Your task to perform on an android device: Open Google Chrome Image 0: 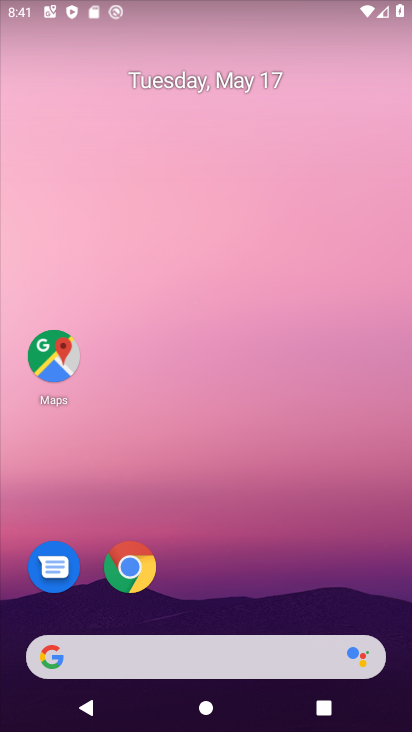
Step 0: click (140, 572)
Your task to perform on an android device: Open Google Chrome Image 1: 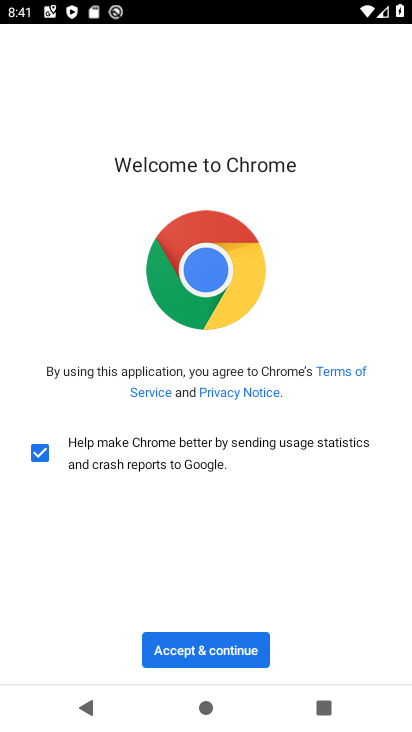
Step 1: click (192, 649)
Your task to perform on an android device: Open Google Chrome Image 2: 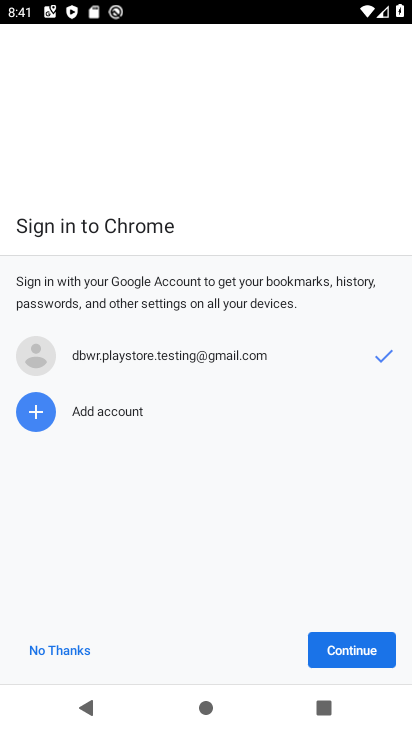
Step 2: click (339, 648)
Your task to perform on an android device: Open Google Chrome Image 3: 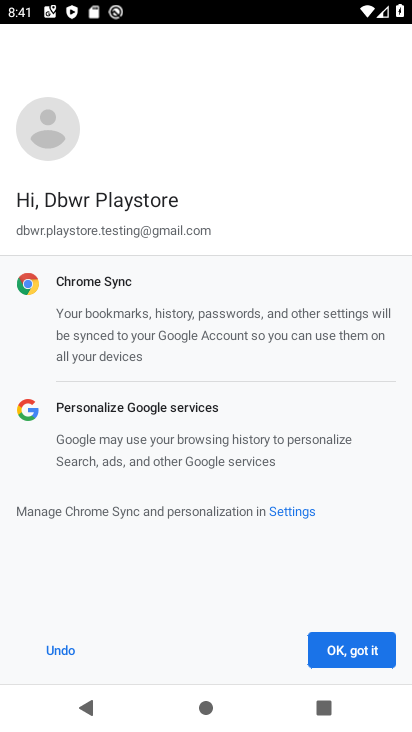
Step 3: click (349, 647)
Your task to perform on an android device: Open Google Chrome Image 4: 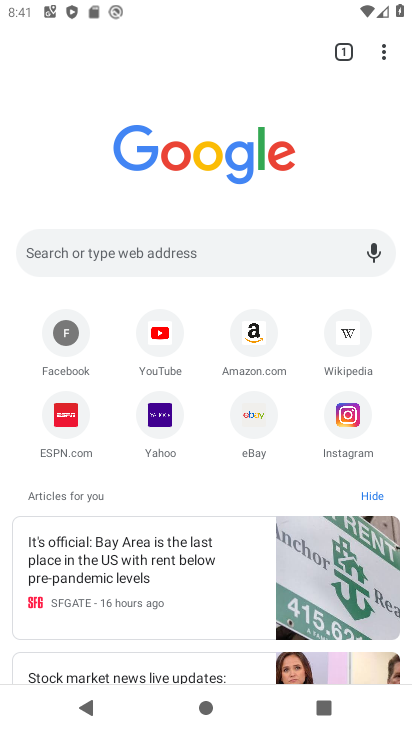
Step 4: task complete